Your task to perform on an android device: change keyboard looks Image 0: 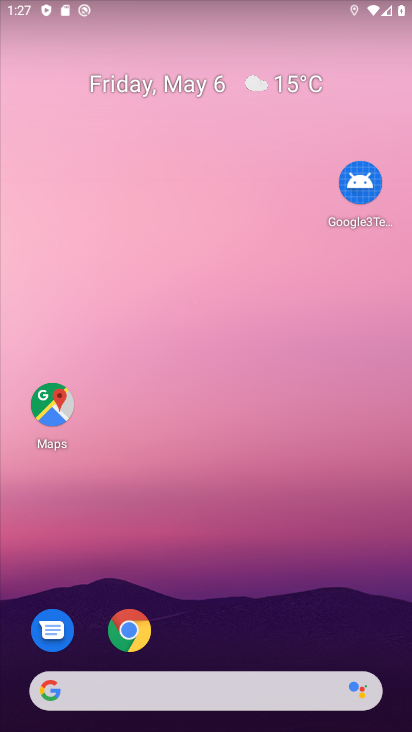
Step 0: drag from (310, 616) to (320, 84)
Your task to perform on an android device: change keyboard looks Image 1: 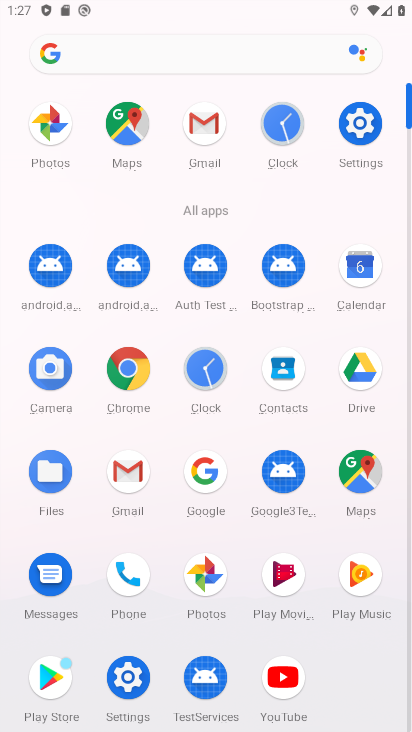
Step 1: drag from (362, 125) to (49, 179)
Your task to perform on an android device: change keyboard looks Image 2: 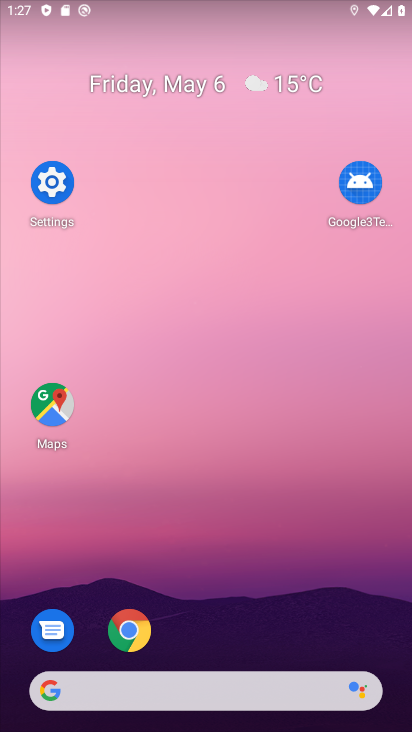
Step 2: click (62, 189)
Your task to perform on an android device: change keyboard looks Image 3: 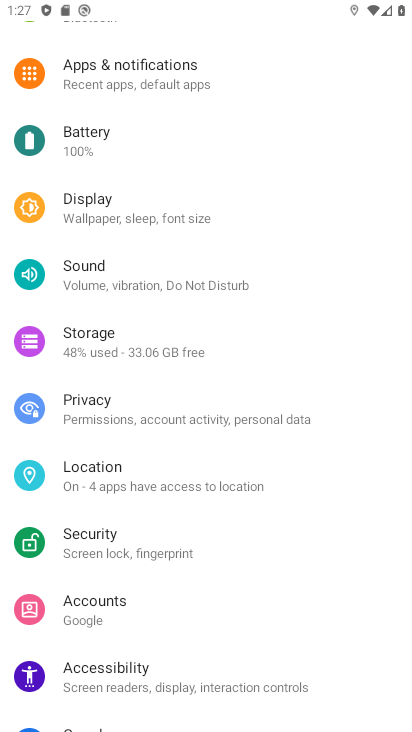
Step 3: drag from (222, 600) to (235, 218)
Your task to perform on an android device: change keyboard looks Image 4: 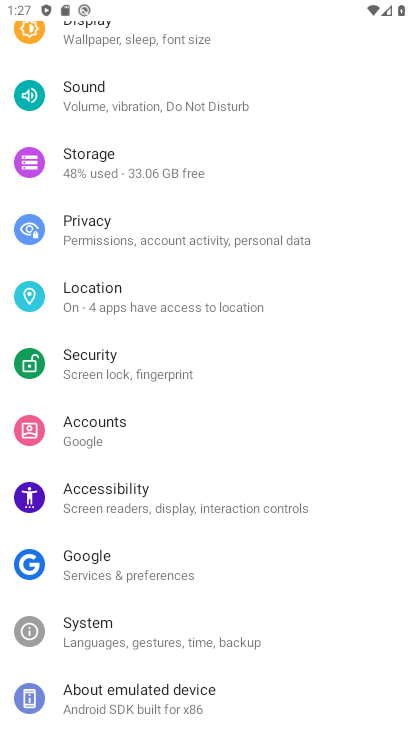
Step 4: drag from (211, 628) to (216, 285)
Your task to perform on an android device: change keyboard looks Image 5: 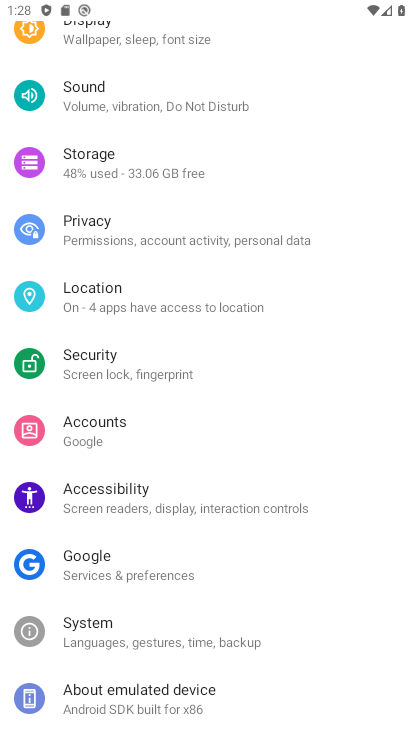
Step 5: click (205, 639)
Your task to perform on an android device: change keyboard looks Image 6: 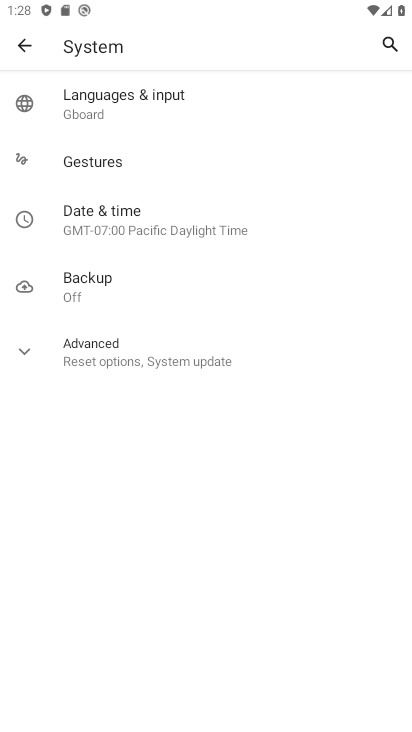
Step 6: click (163, 100)
Your task to perform on an android device: change keyboard looks Image 7: 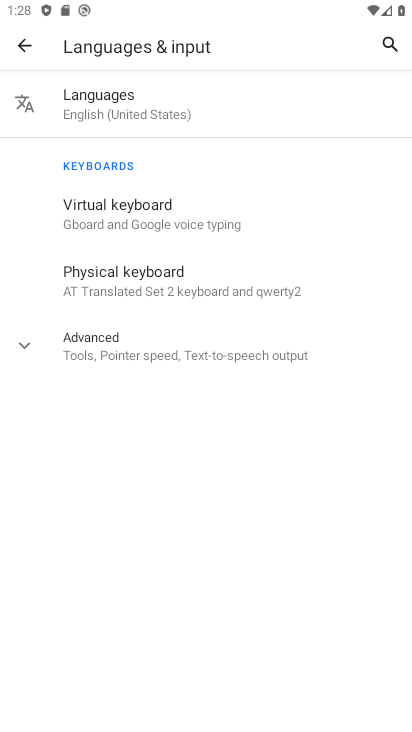
Step 7: click (166, 223)
Your task to perform on an android device: change keyboard looks Image 8: 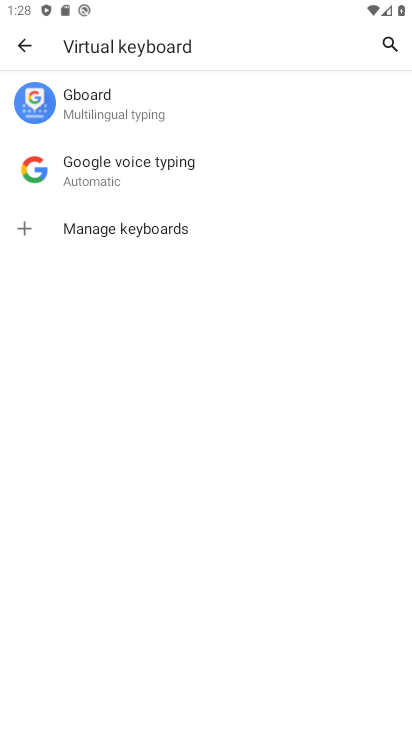
Step 8: click (139, 125)
Your task to perform on an android device: change keyboard looks Image 9: 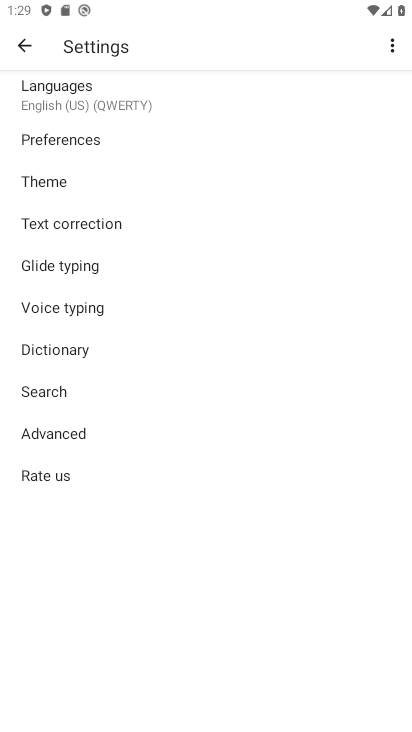
Step 9: click (51, 190)
Your task to perform on an android device: change keyboard looks Image 10: 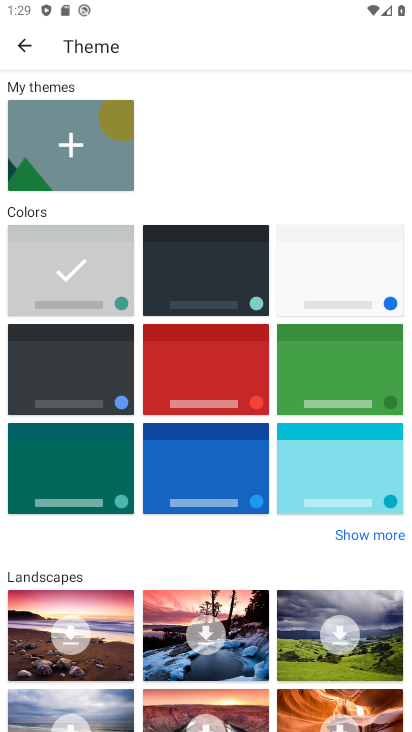
Step 10: click (244, 292)
Your task to perform on an android device: change keyboard looks Image 11: 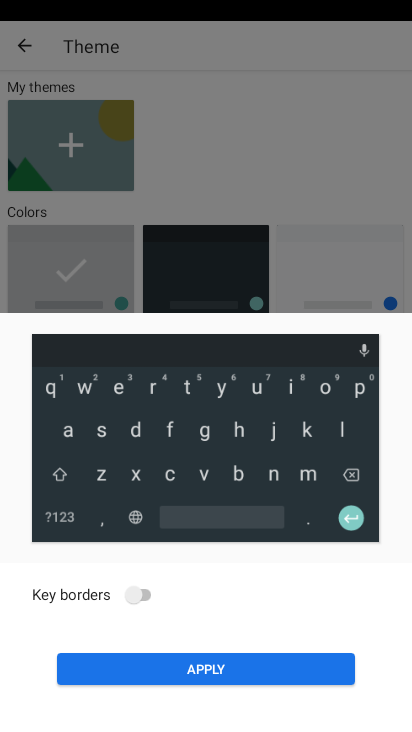
Step 11: click (138, 598)
Your task to perform on an android device: change keyboard looks Image 12: 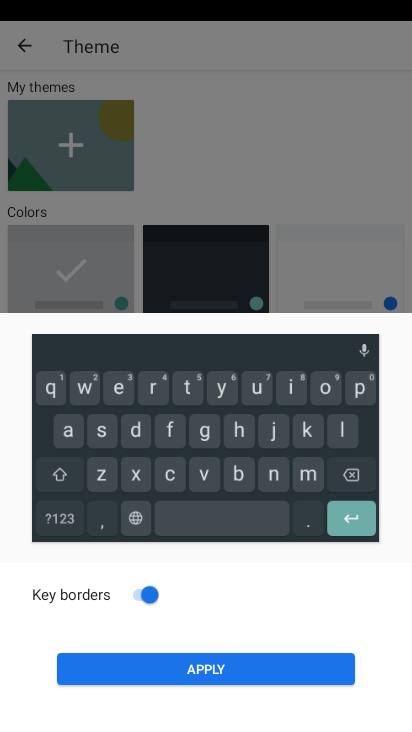
Step 12: click (226, 672)
Your task to perform on an android device: change keyboard looks Image 13: 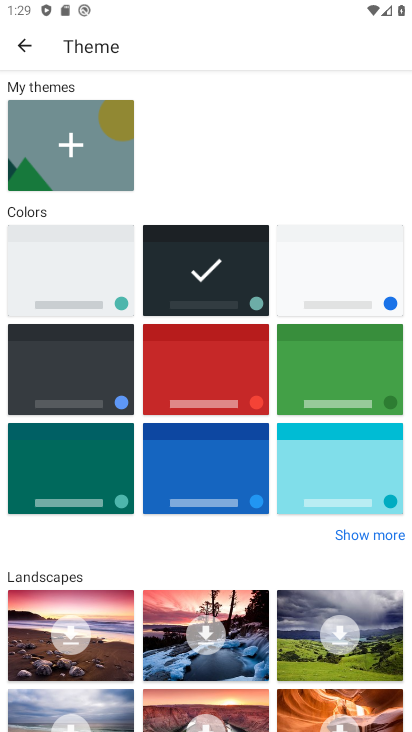
Step 13: task complete